Your task to perform on an android device: set the timer Image 0: 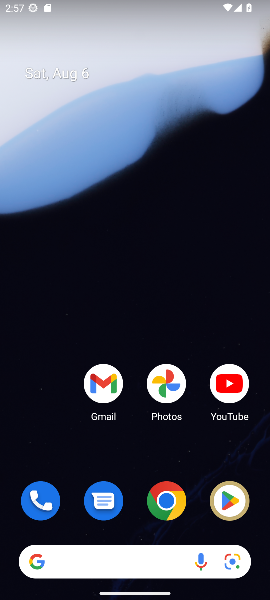
Step 0: drag from (207, 450) to (190, 56)
Your task to perform on an android device: set the timer Image 1: 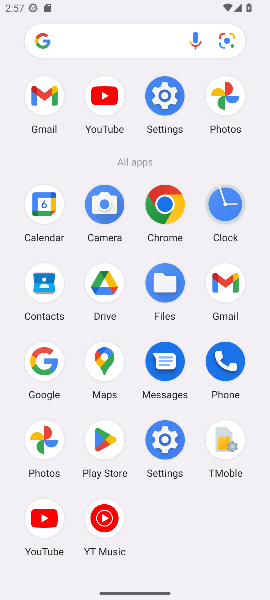
Step 1: click (228, 201)
Your task to perform on an android device: set the timer Image 2: 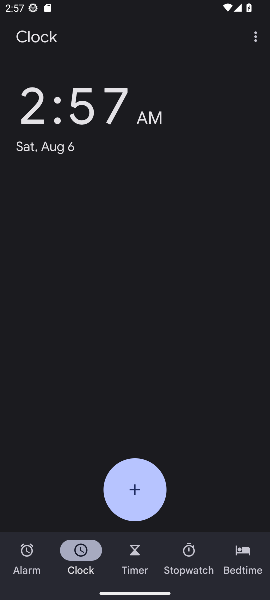
Step 2: click (132, 479)
Your task to perform on an android device: set the timer Image 3: 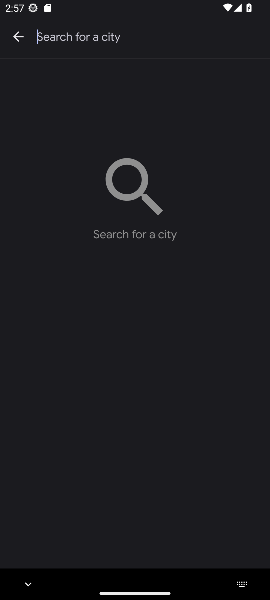
Step 3: click (21, 35)
Your task to perform on an android device: set the timer Image 4: 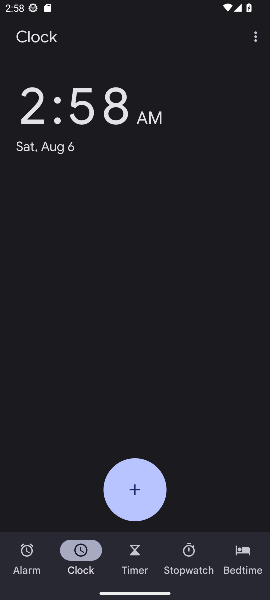
Step 4: click (132, 574)
Your task to perform on an android device: set the timer Image 5: 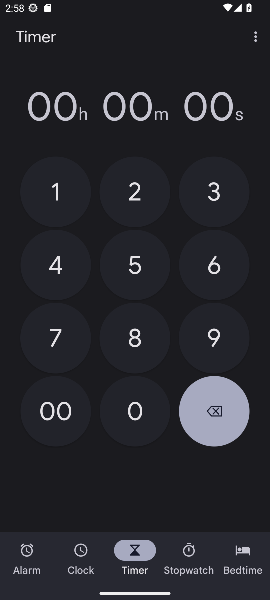
Step 5: click (151, 276)
Your task to perform on an android device: set the timer Image 6: 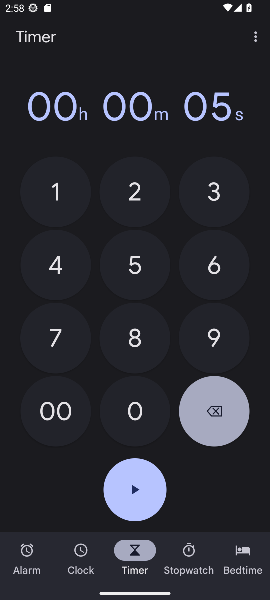
Step 6: task complete